Your task to perform on an android device: snooze an email in the gmail app Image 0: 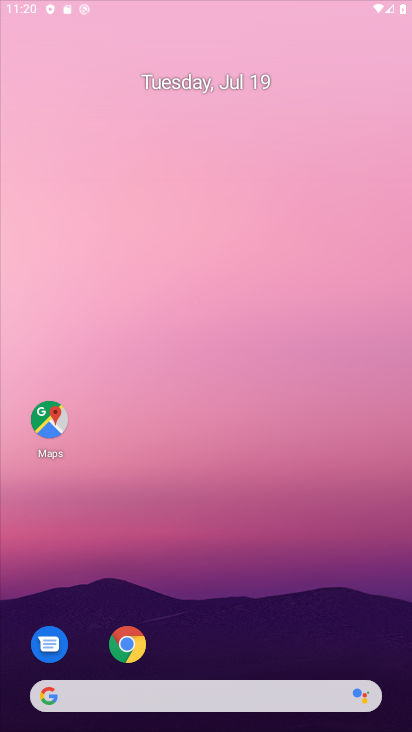
Step 0: drag from (297, 555) to (407, 308)
Your task to perform on an android device: snooze an email in the gmail app Image 1: 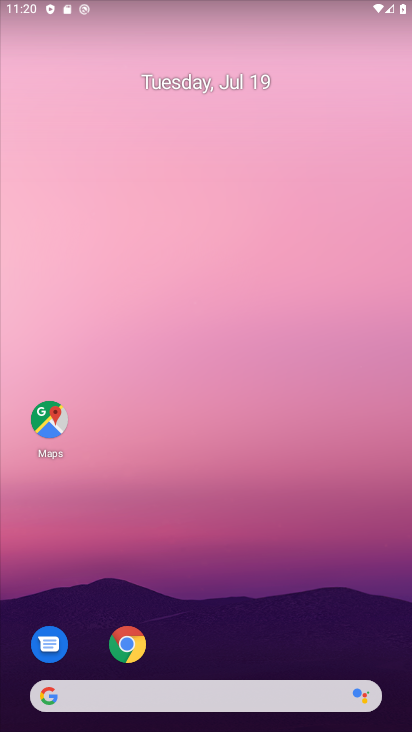
Step 1: drag from (217, 609) to (41, 15)
Your task to perform on an android device: snooze an email in the gmail app Image 2: 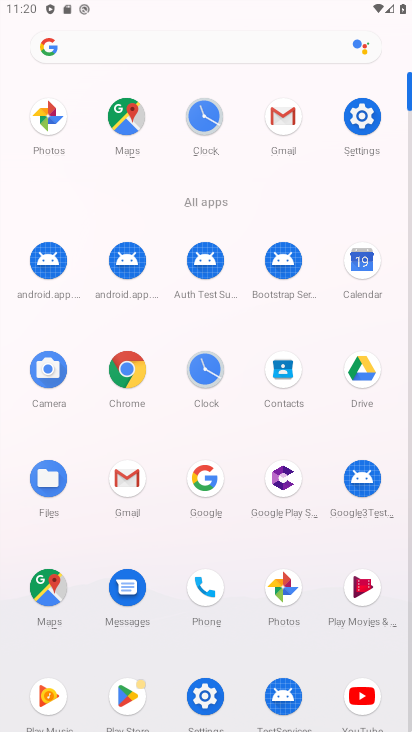
Step 2: click (127, 488)
Your task to perform on an android device: snooze an email in the gmail app Image 3: 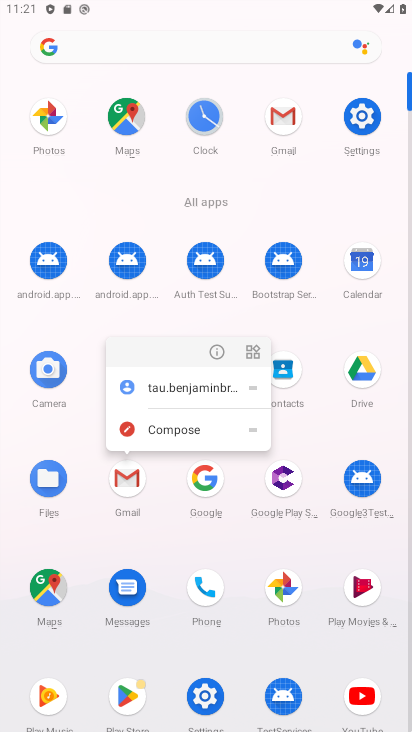
Step 3: click (215, 355)
Your task to perform on an android device: snooze an email in the gmail app Image 4: 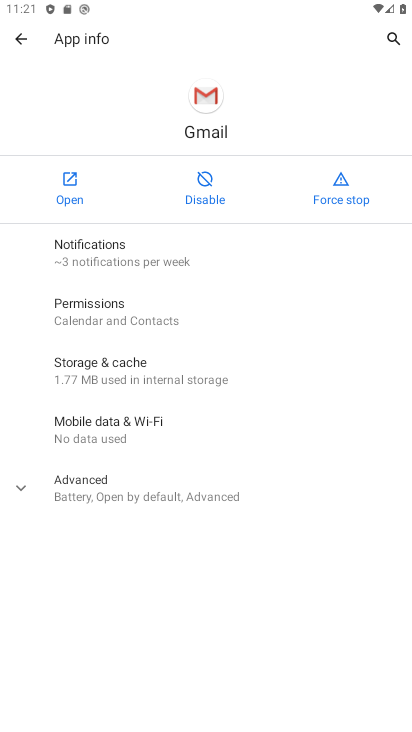
Step 4: click (70, 180)
Your task to perform on an android device: snooze an email in the gmail app Image 5: 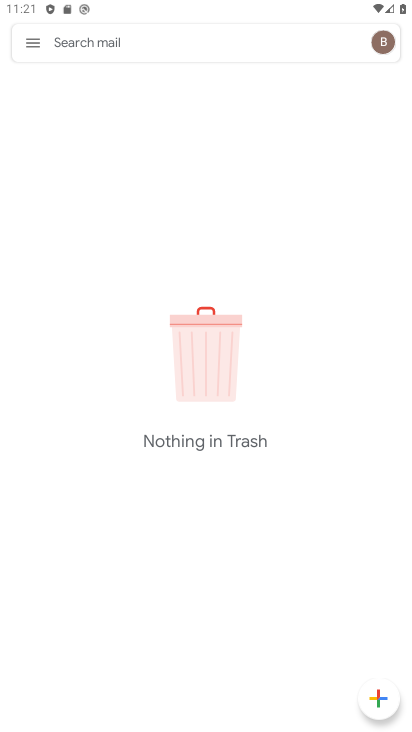
Step 5: click (293, 388)
Your task to perform on an android device: snooze an email in the gmail app Image 6: 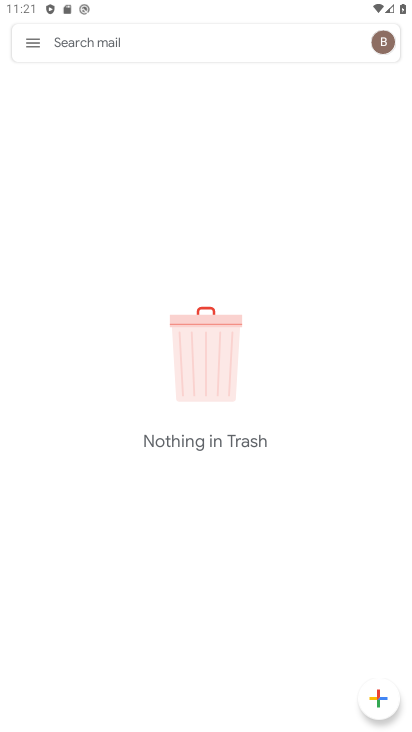
Step 6: click (36, 50)
Your task to perform on an android device: snooze an email in the gmail app Image 7: 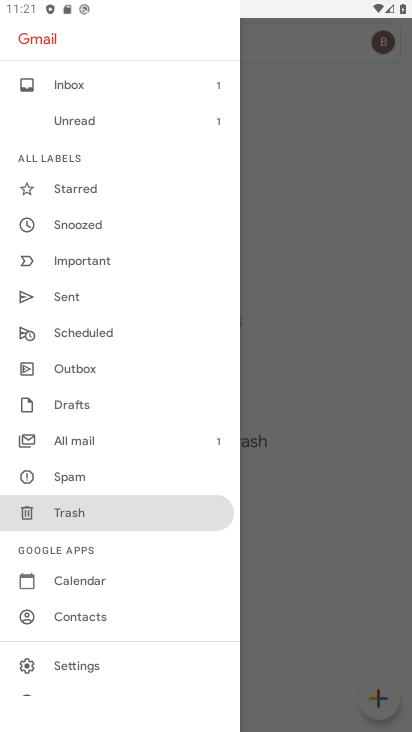
Step 7: click (69, 80)
Your task to perform on an android device: snooze an email in the gmail app Image 8: 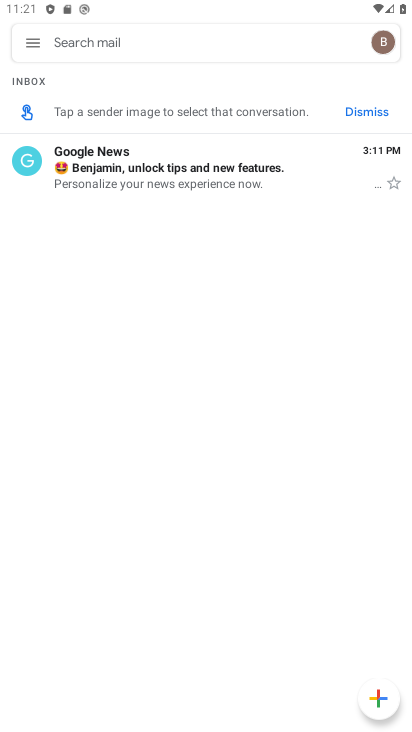
Step 8: click (212, 172)
Your task to perform on an android device: snooze an email in the gmail app Image 9: 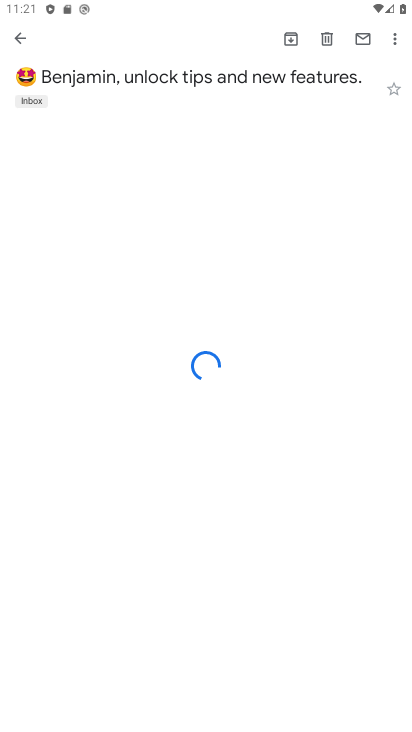
Step 9: click (383, 28)
Your task to perform on an android device: snooze an email in the gmail app Image 10: 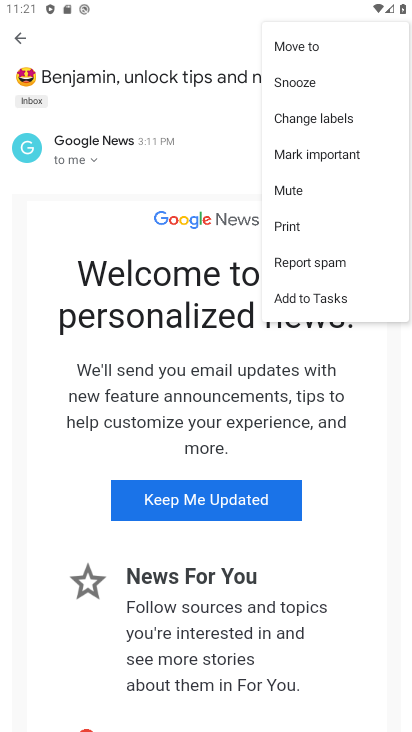
Step 10: click (310, 79)
Your task to perform on an android device: snooze an email in the gmail app Image 11: 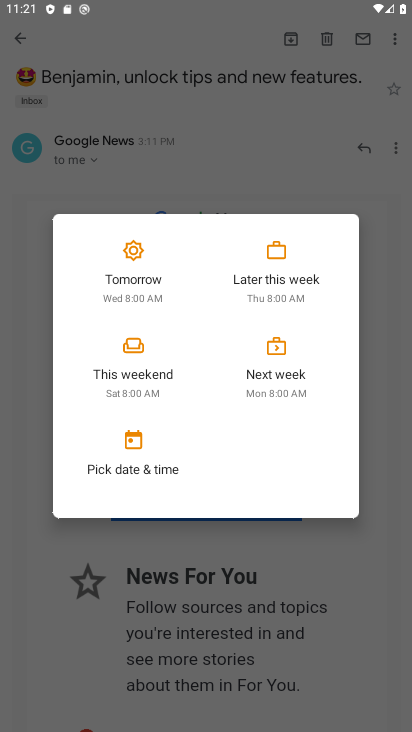
Step 11: click (132, 255)
Your task to perform on an android device: snooze an email in the gmail app Image 12: 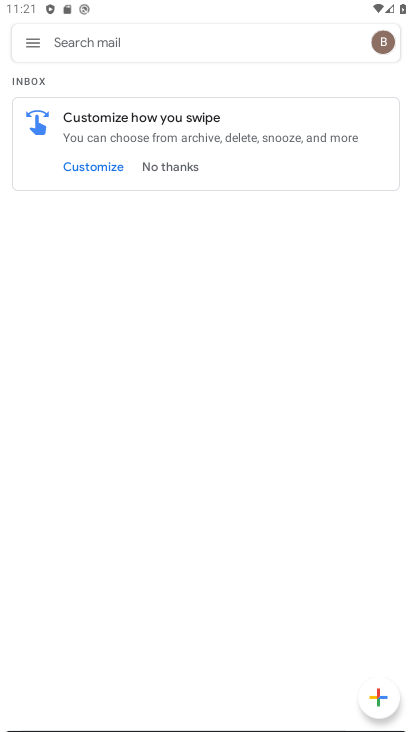
Step 12: task complete